Your task to perform on an android device: Open battery settings Image 0: 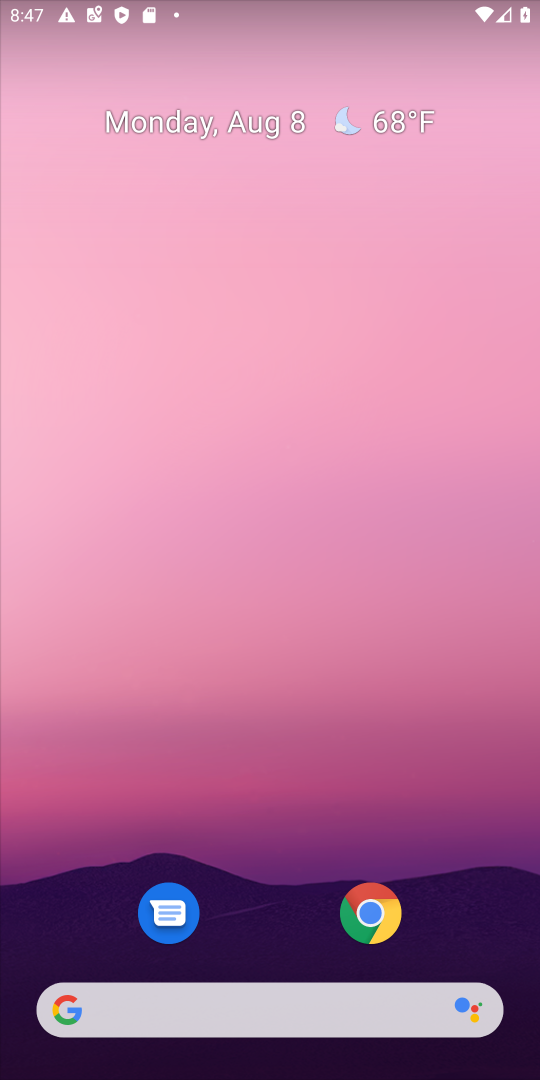
Step 0: drag from (238, 902) to (324, 256)
Your task to perform on an android device: Open battery settings Image 1: 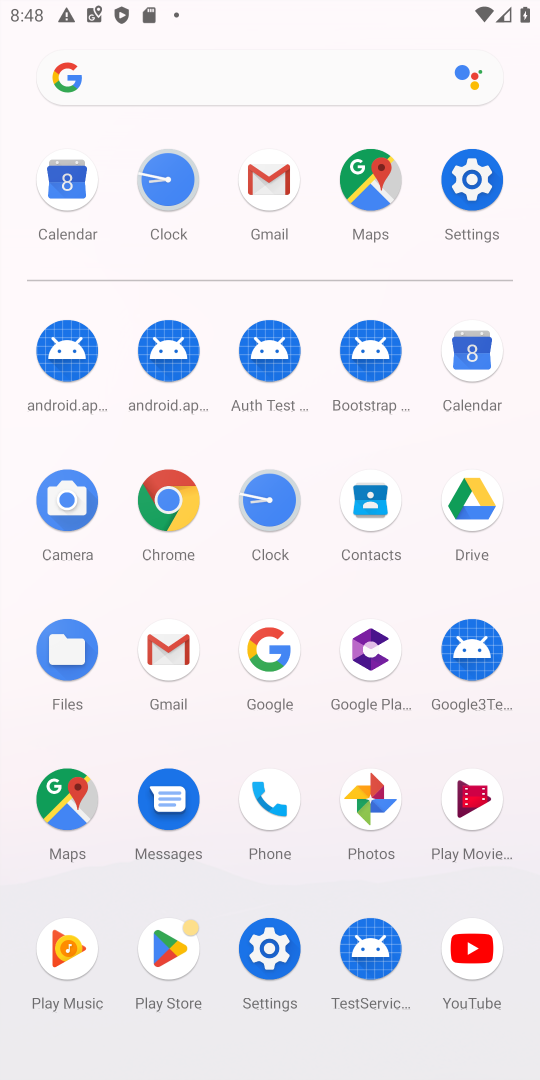
Step 1: click (267, 946)
Your task to perform on an android device: Open battery settings Image 2: 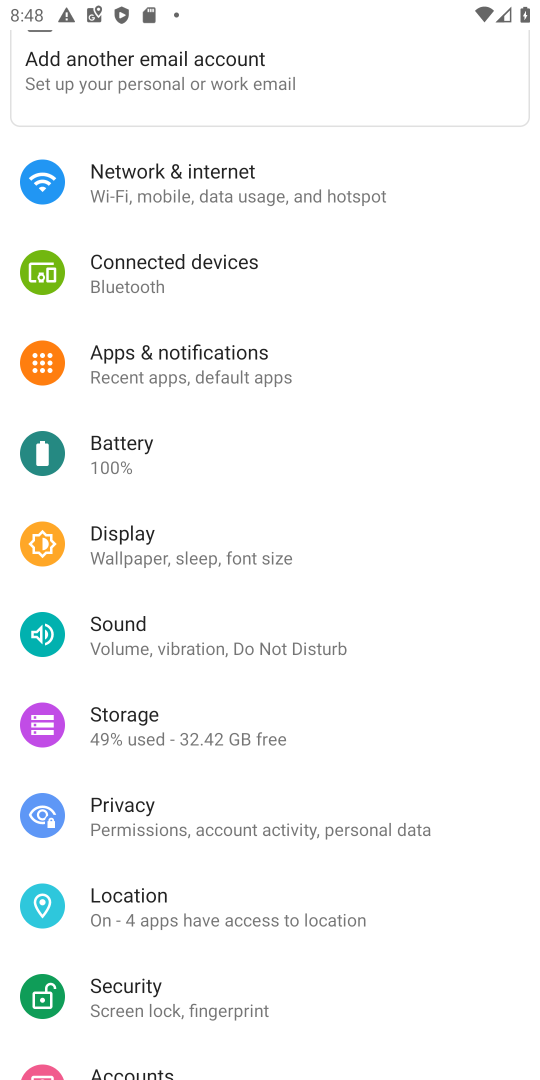
Step 2: click (115, 453)
Your task to perform on an android device: Open battery settings Image 3: 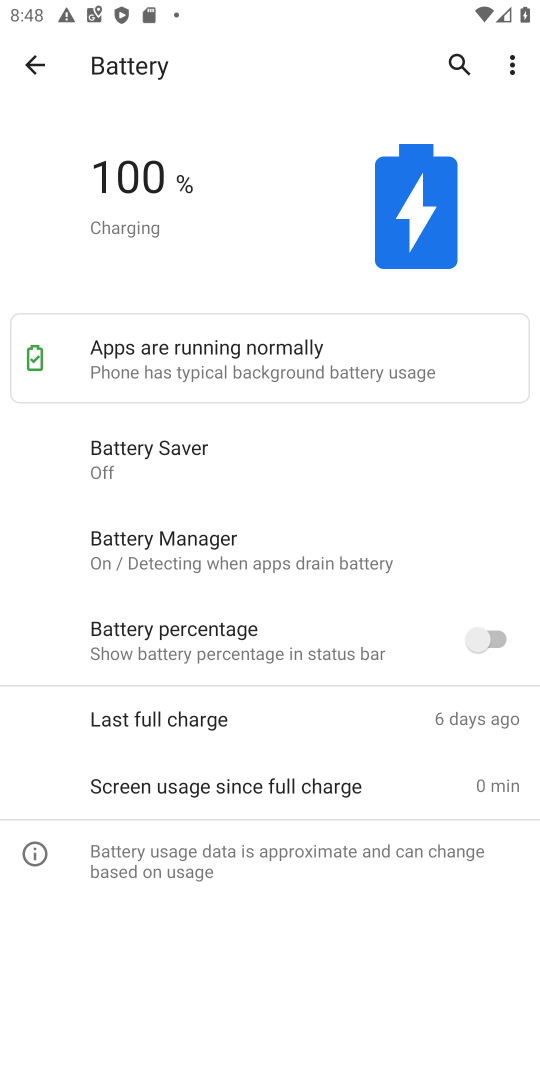
Step 3: task complete